Your task to perform on an android device: When is my next appointment? Image 0: 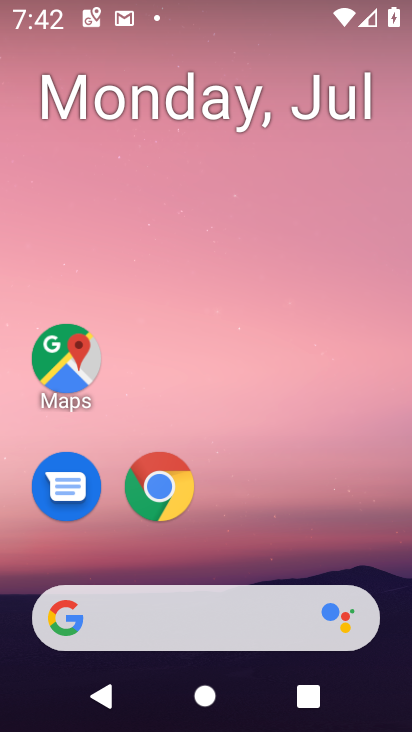
Step 0: drag from (365, 553) to (371, 146)
Your task to perform on an android device: When is my next appointment? Image 1: 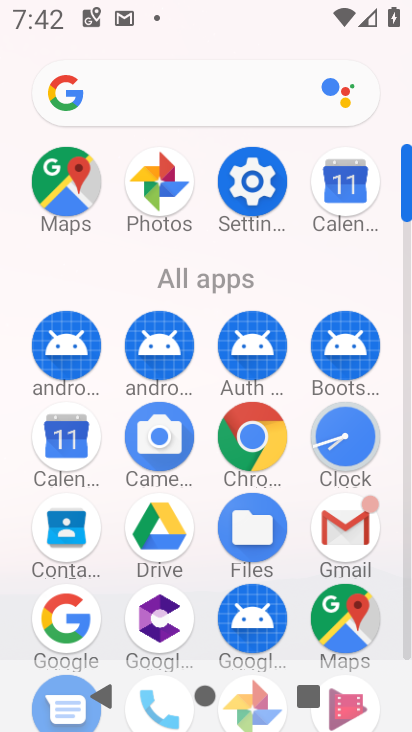
Step 1: click (77, 455)
Your task to perform on an android device: When is my next appointment? Image 2: 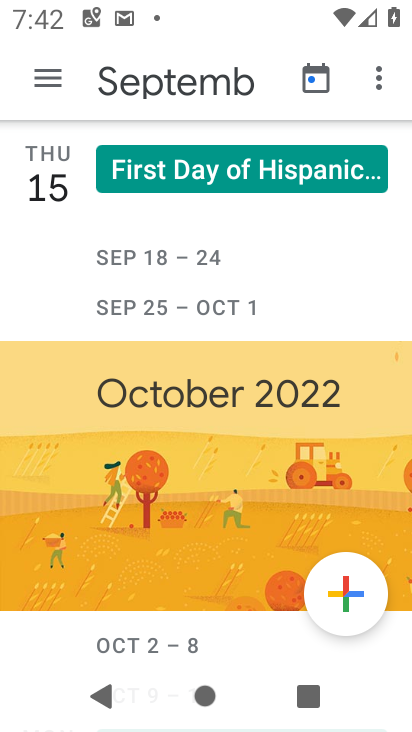
Step 2: task complete